Your task to perform on an android device: What's on the menu at Pizza Hut? Image 0: 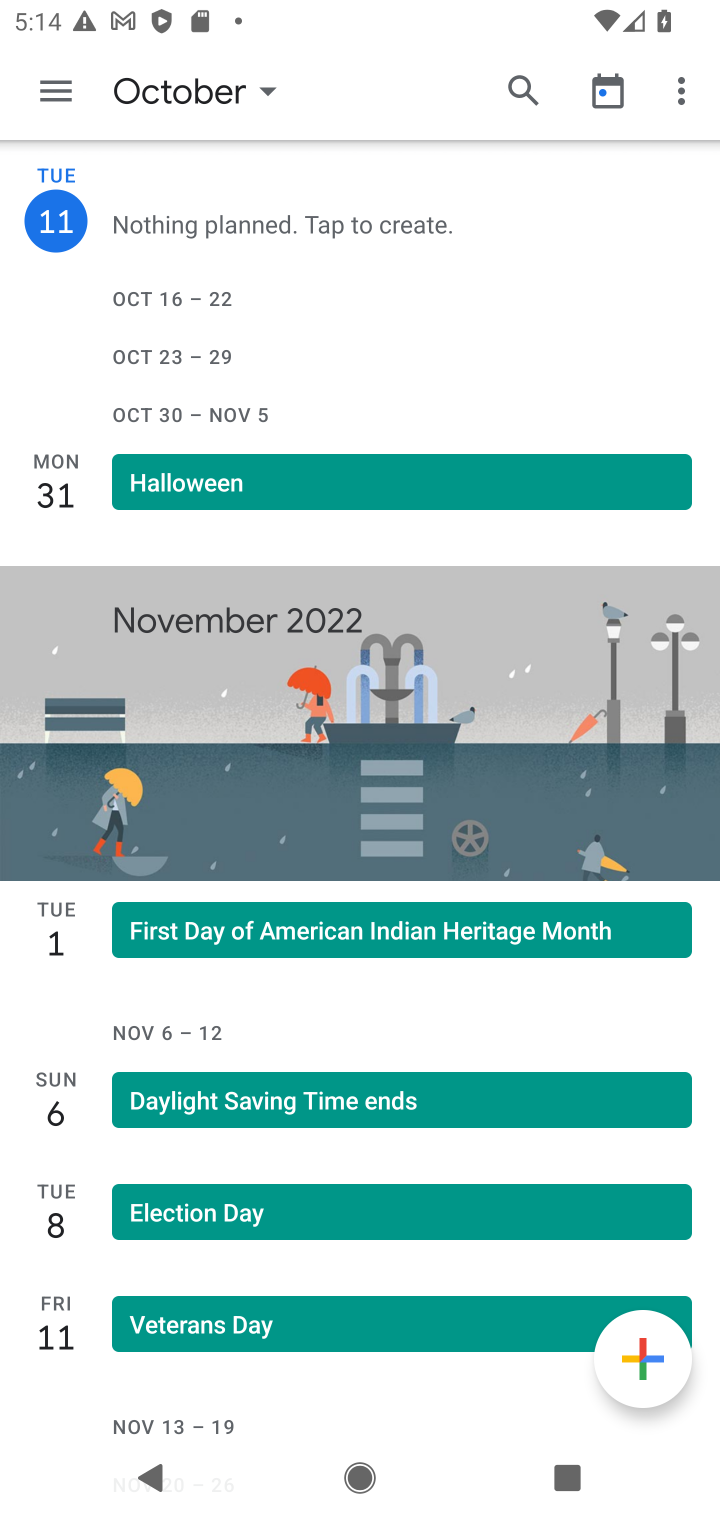
Step 0: press home button
Your task to perform on an android device: What's on the menu at Pizza Hut? Image 1: 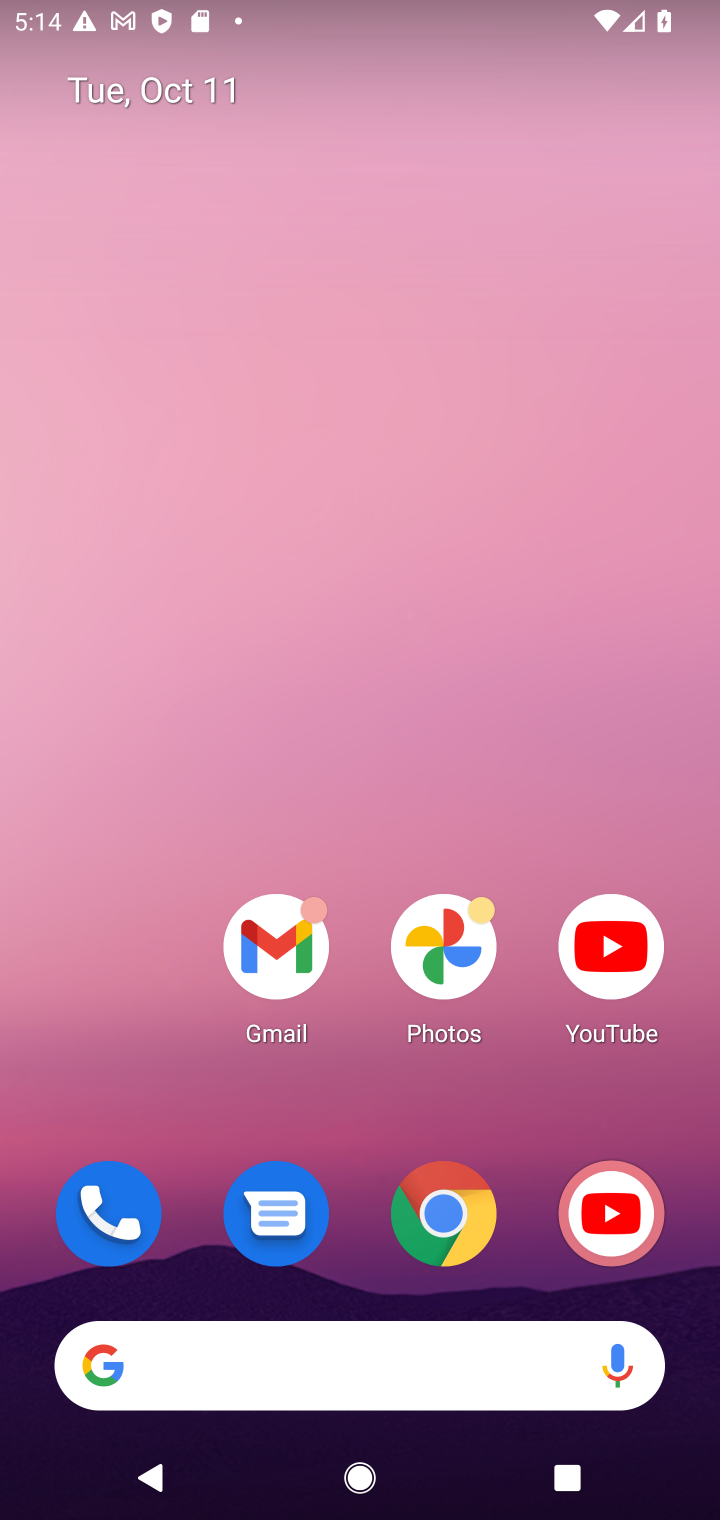
Step 1: drag from (256, 681) to (258, 274)
Your task to perform on an android device: What's on the menu at Pizza Hut? Image 2: 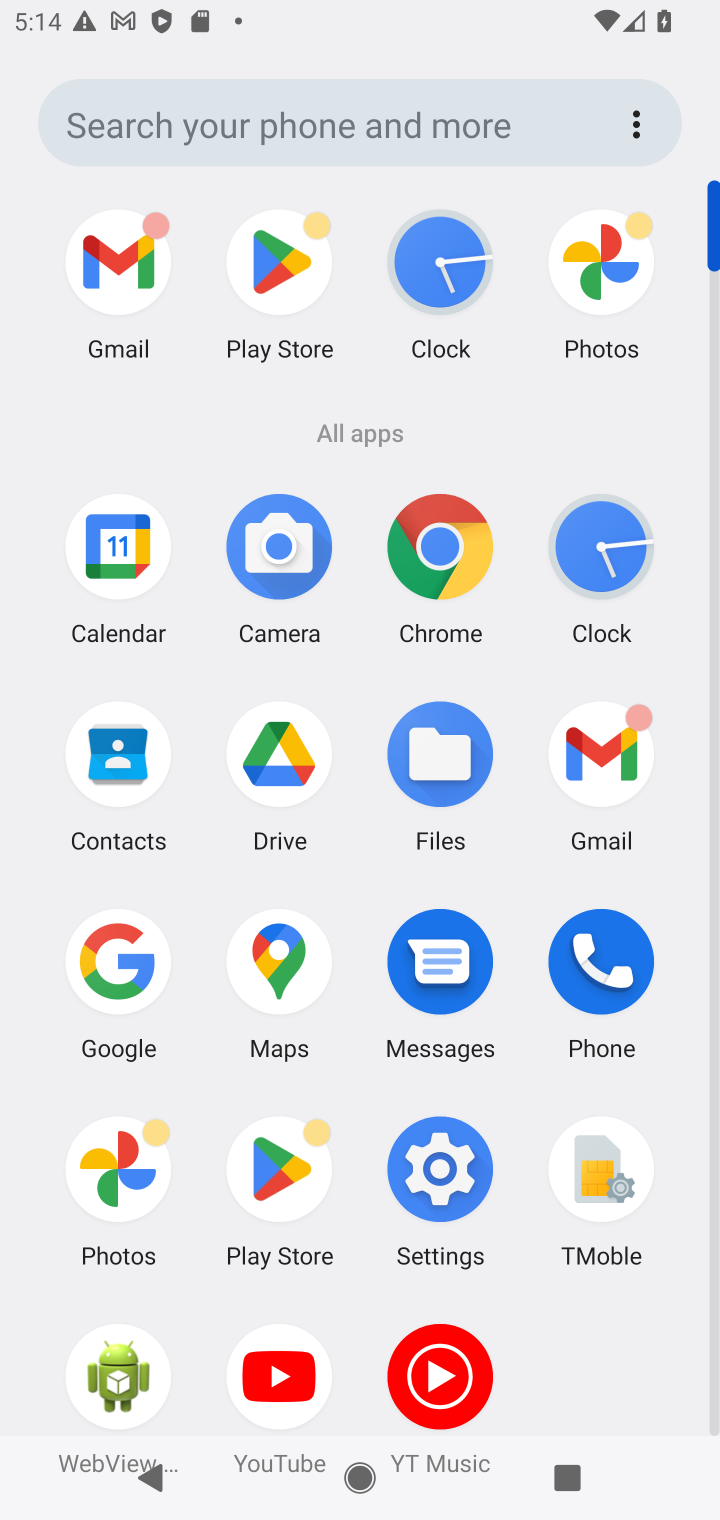
Step 2: click (101, 954)
Your task to perform on an android device: What's on the menu at Pizza Hut? Image 3: 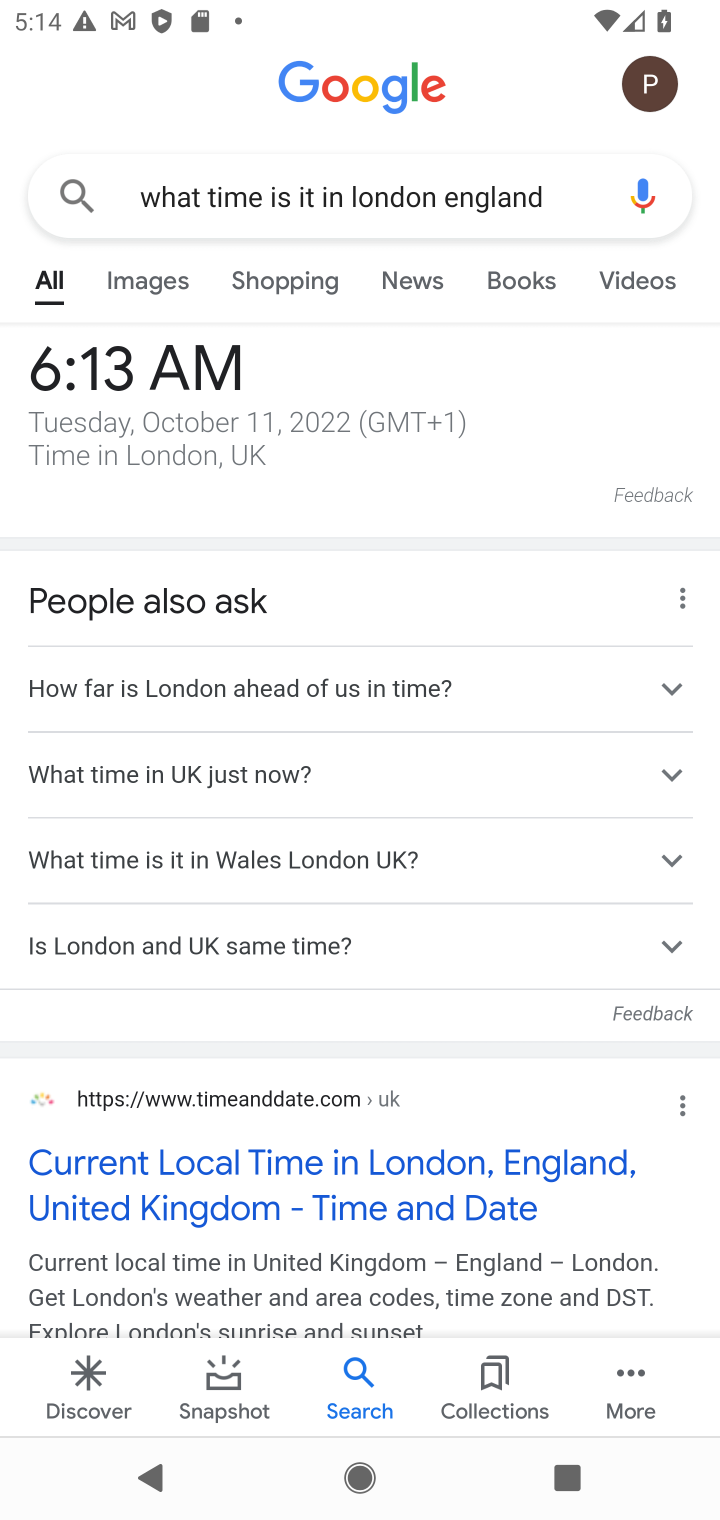
Step 3: click (357, 189)
Your task to perform on an android device: What's on the menu at Pizza Hut? Image 4: 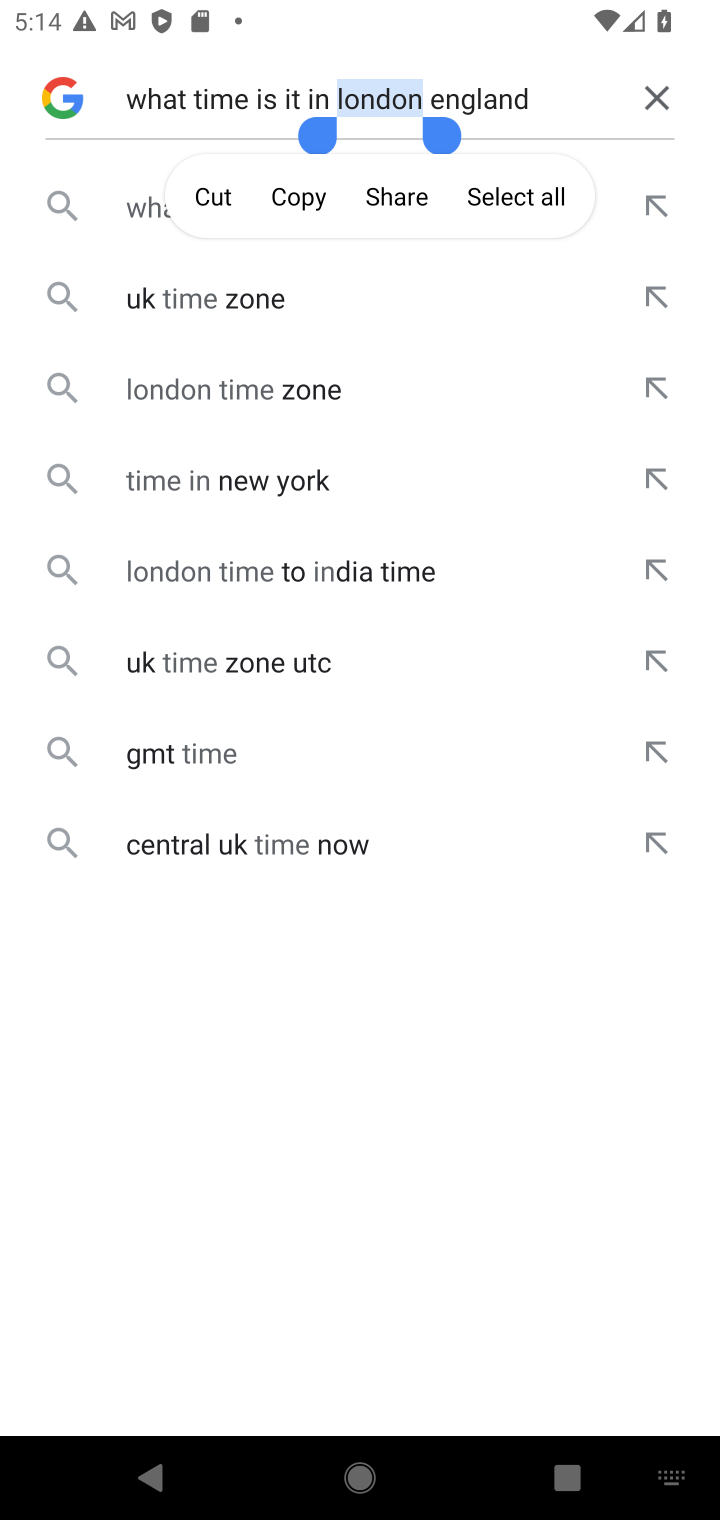
Step 4: click (664, 91)
Your task to perform on an android device: What's on the menu at Pizza Hut? Image 5: 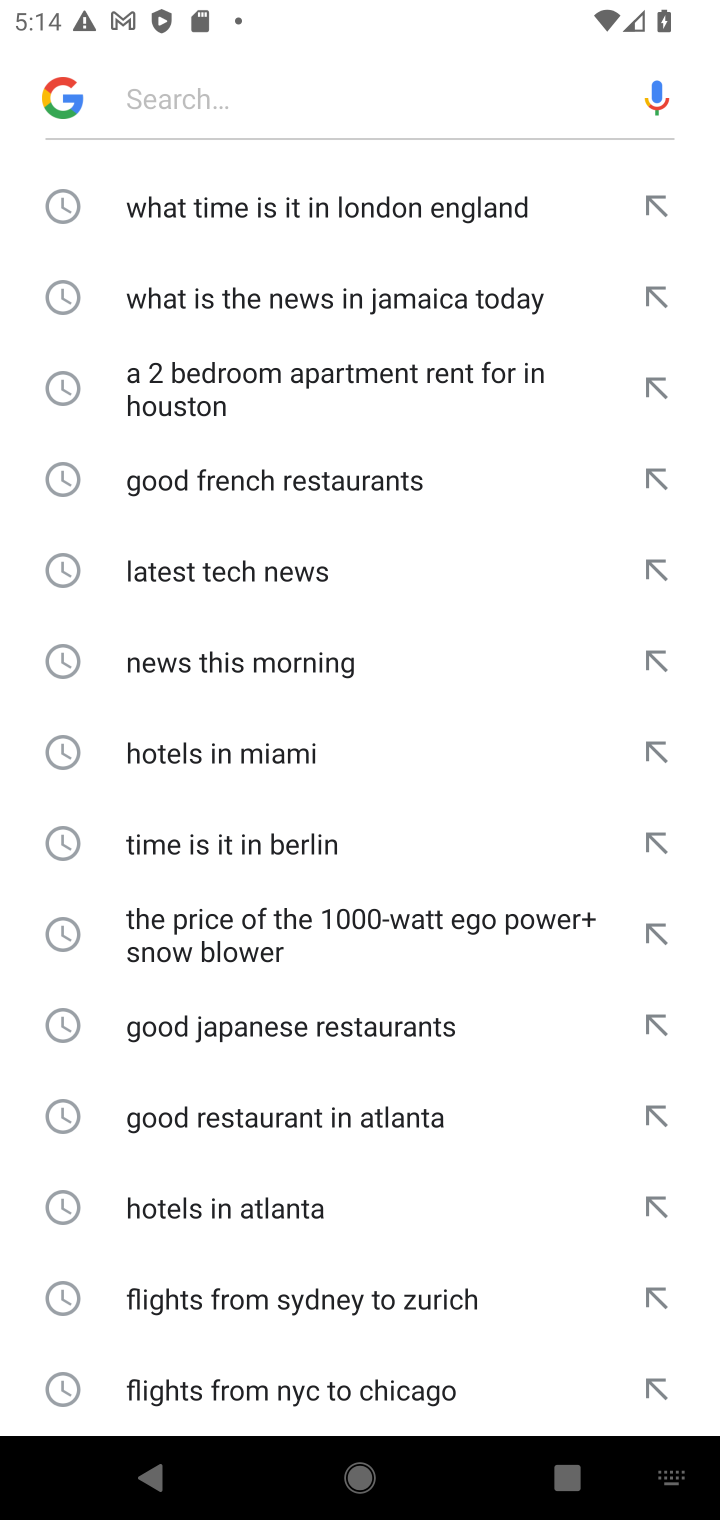
Step 5: type "What's on the menu at Pizza Hut?"
Your task to perform on an android device: What's on the menu at Pizza Hut? Image 6: 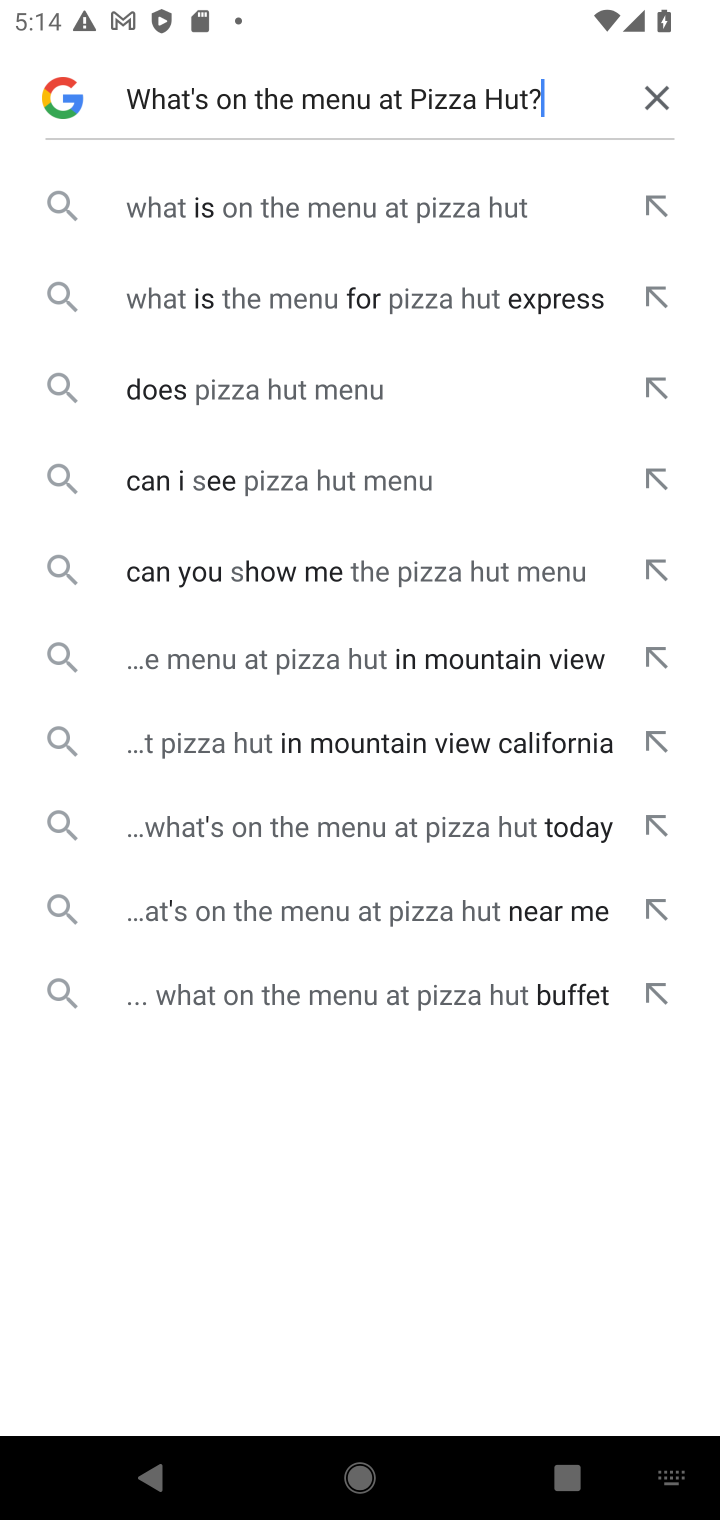
Step 6: click (238, 224)
Your task to perform on an android device: What's on the menu at Pizza Hut? Image 7: 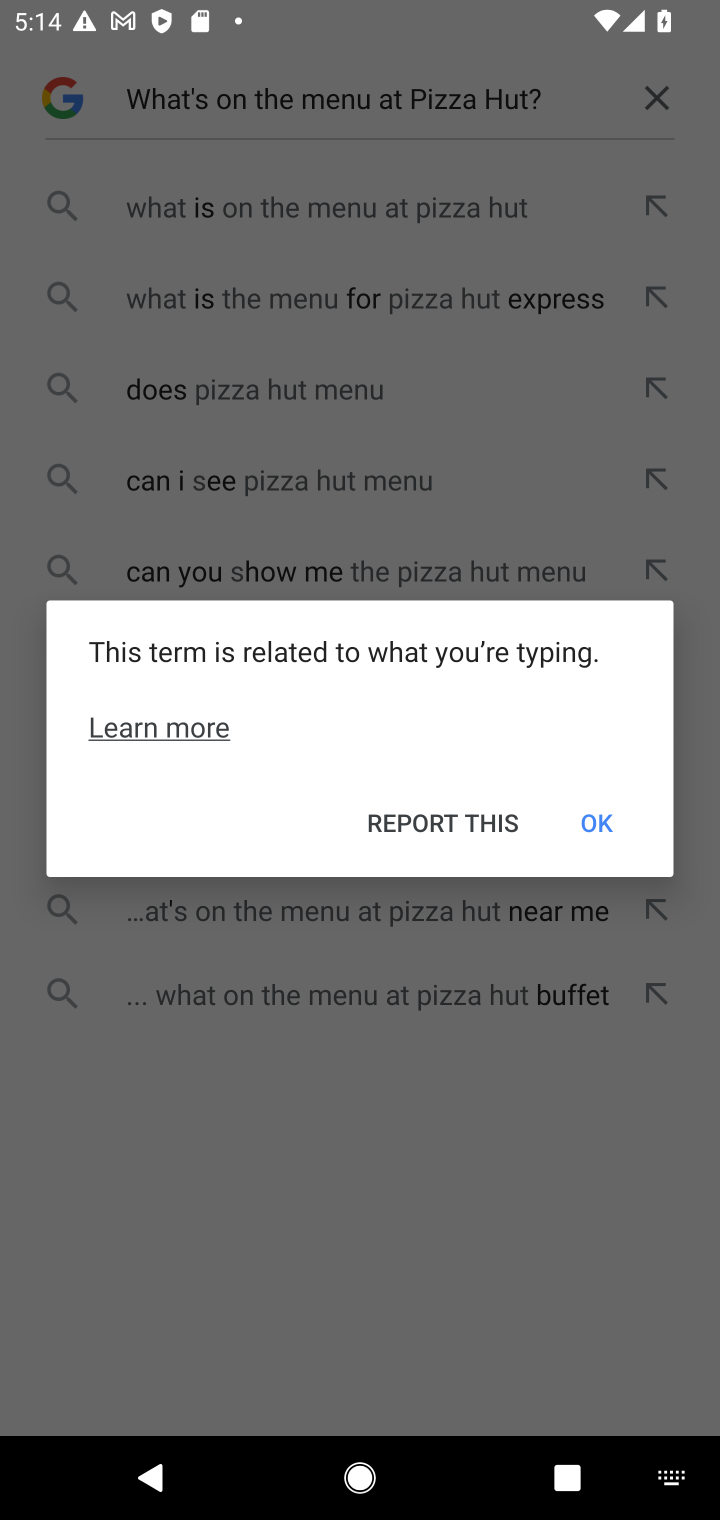
Step 7: click (238, 207)
Your task to perform on an android device: What's on the menu at Pizza Hut? Image 8: 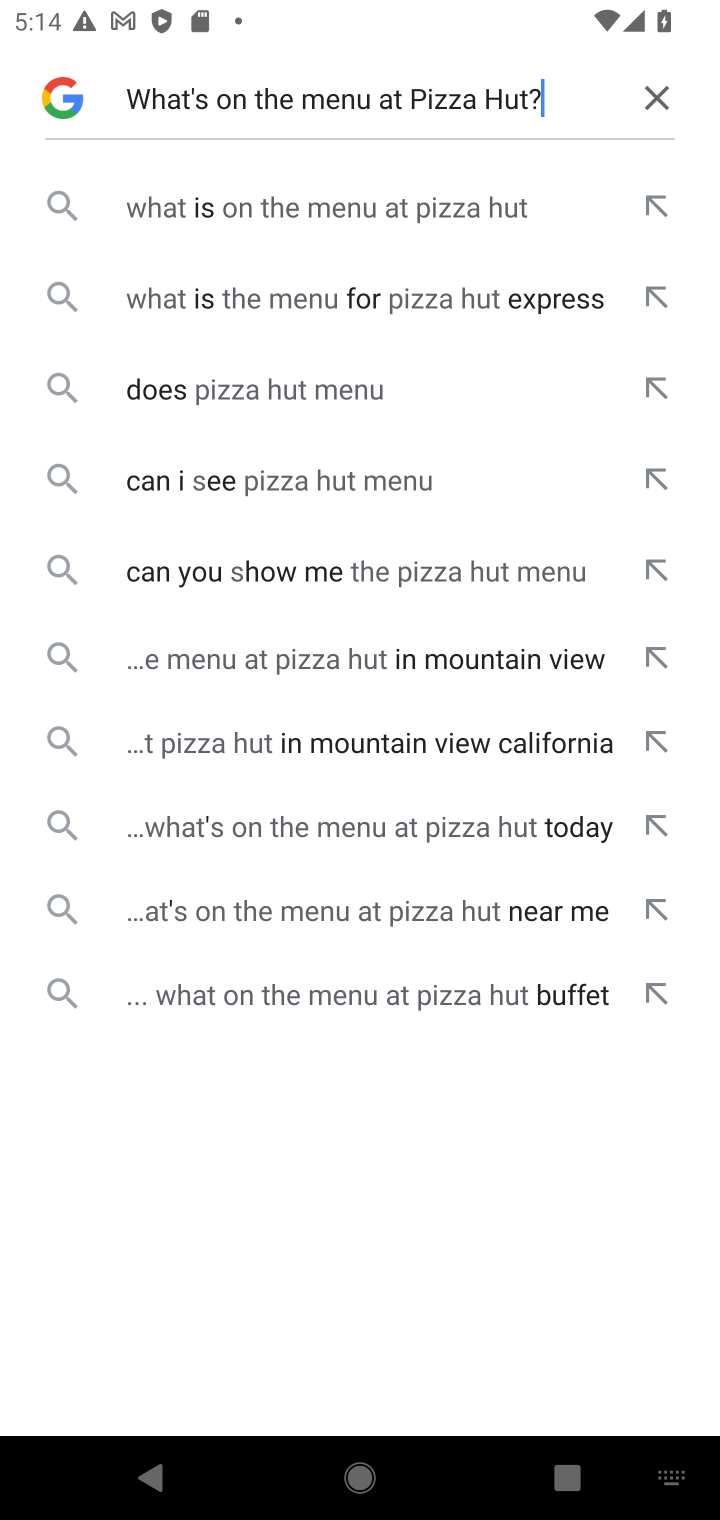
Step 8: click (238, 207)
Your task to perform on an android device: What's on the menu at Pizza Hut? Image 9: 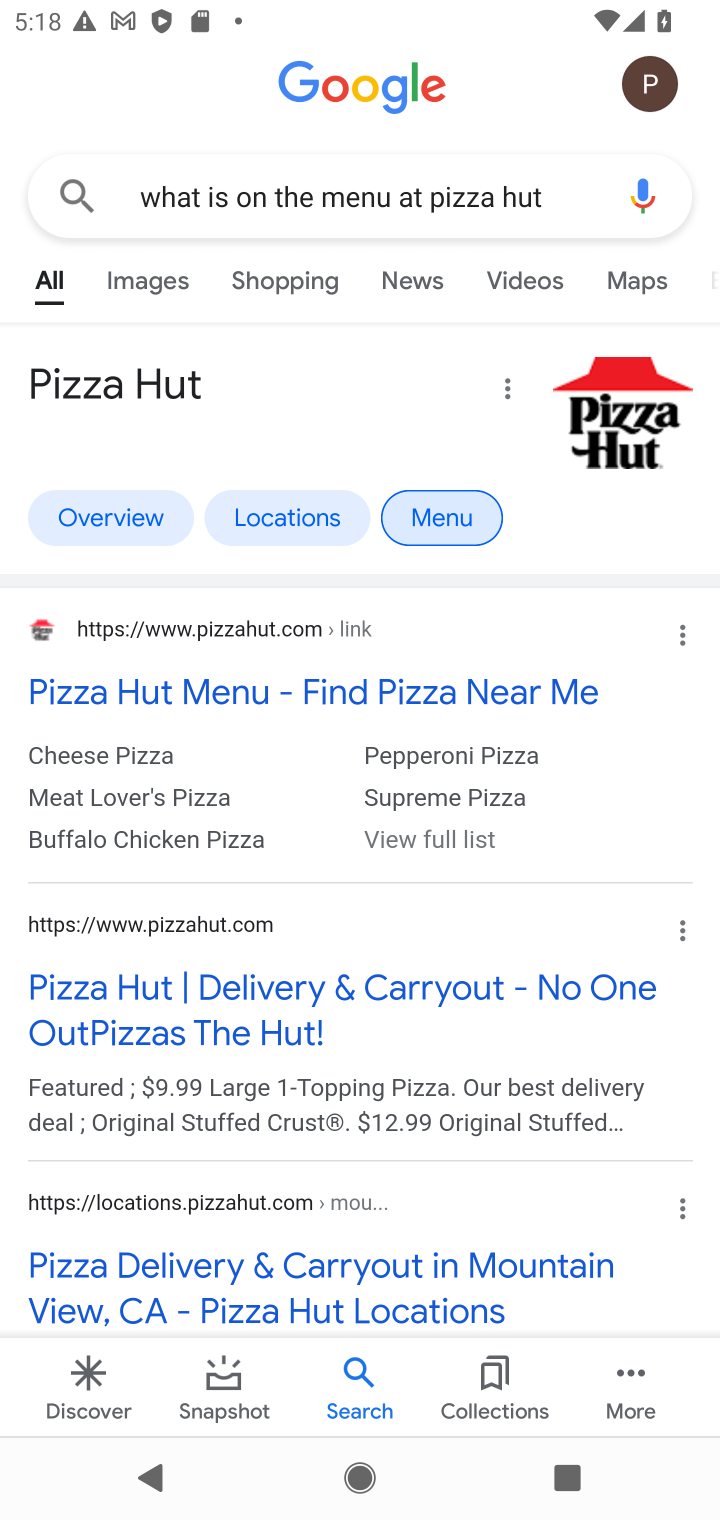
Step 9: click (180, 703)
Your task to perform on an android device: What's on the menu at Pizza Hut? Image 10: 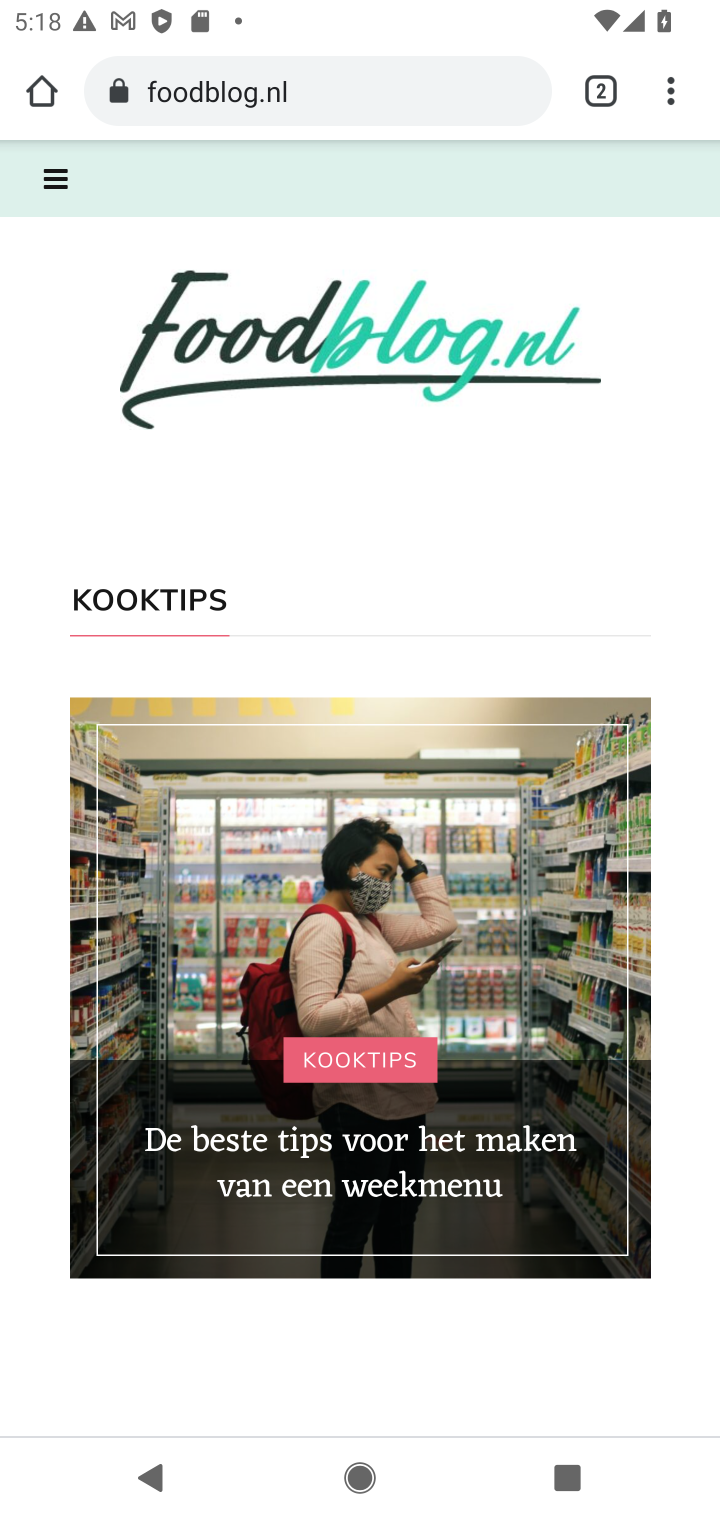
Step 10: task complete